Your task to perform on an android device: read, delete, or share a saved page in the chrome app Image 0: 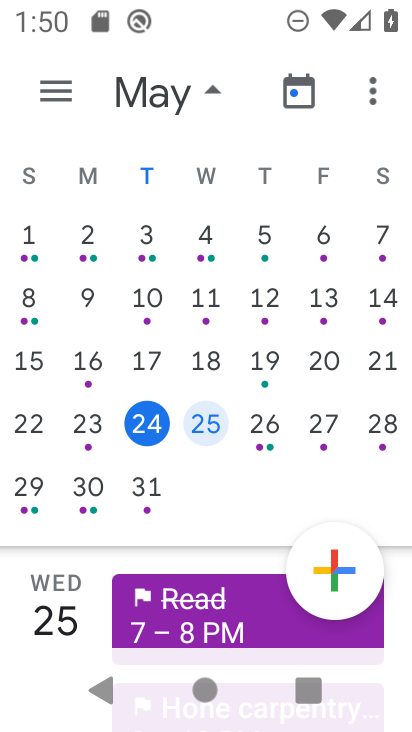
Step 0: press home button
Your task to perform on an android device: read, delete, or share a saved page in the chrome app Image 1: 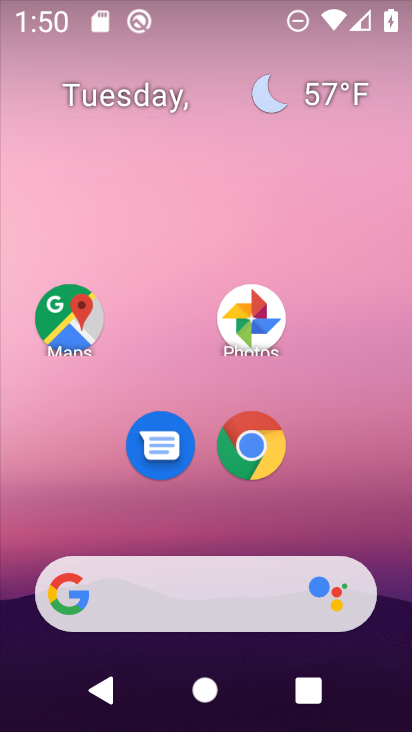
Step 1: drag from (351, 526) to (378, 158)
Your task to perform on an android device: read, delete, or share a saved page in the chrome app Image 2: 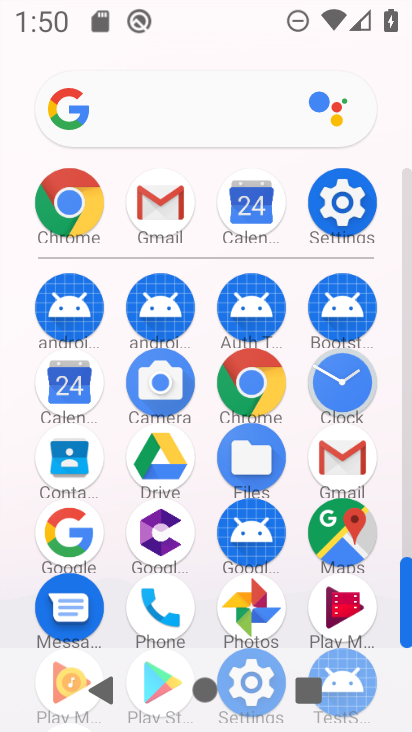
Step 2: click (280, 395)
Your task to perform on an android device: read, delete, or share a saved page in the chrome app Image 3: 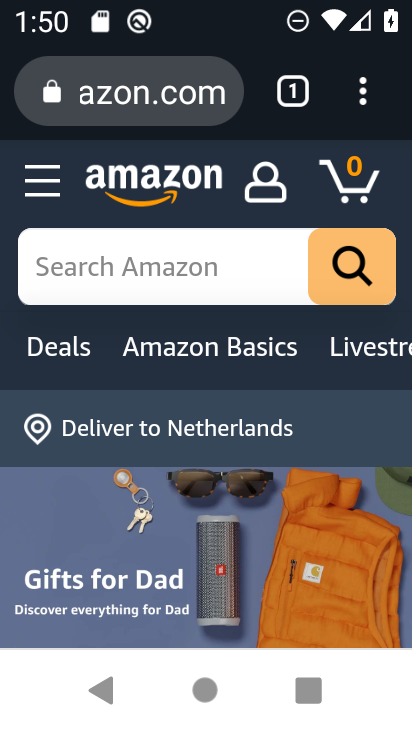
Step 3: click (364, 107)
Your task to perform on an android device: read, delete, or share a saved page in the chrome app Image 4: 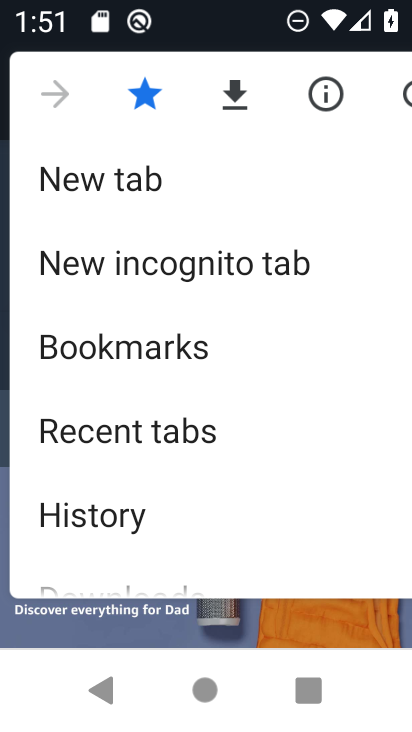
Step 4: drag from (336, 483) to (352, 350)
Your task to perform on an android device: read, delete, or share a saved page in the chrome app Image 5: 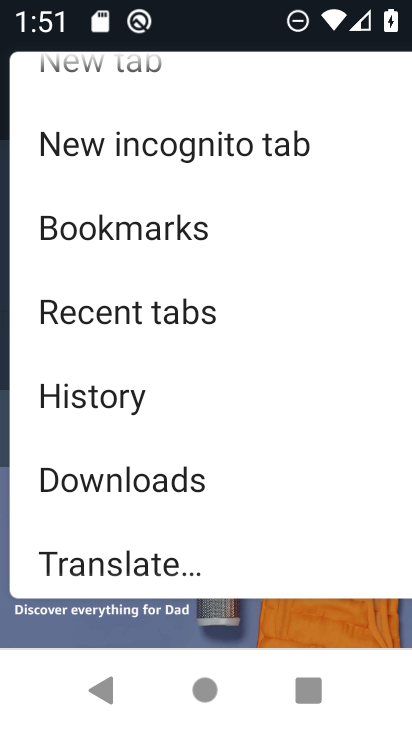
Step 5: drag from (336, 458) to (328, 306)
Your task to perform on an android device: read, delete, or share a saved page in the chrome app Image 6: 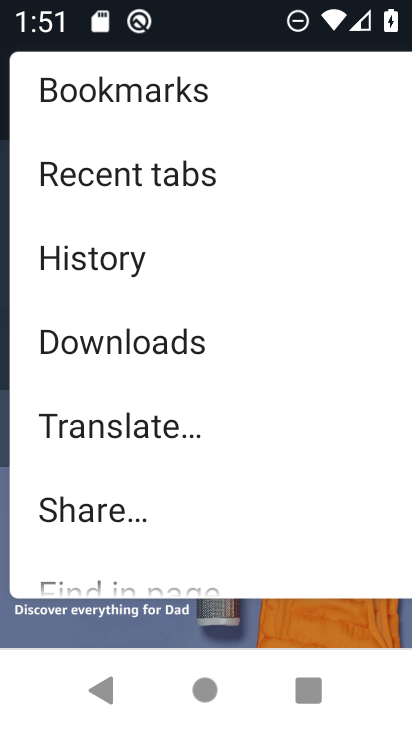
Step 6: drag from (359, 464) to (347, 318)
Your task to perform on an android device: read, delete, or share a saved page in the chrome app Image 7: 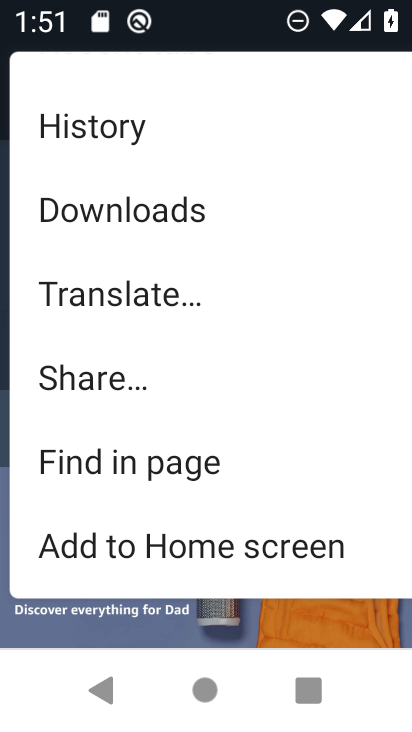
Step 7: drag from (383, 504) to (375, 356)
Your task to perform on an android device: read, delete, or share a saved page in the chrome app Image 8: 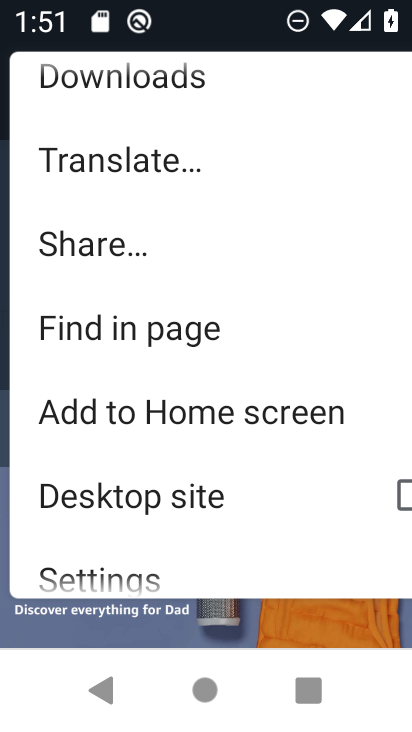
Step 8: drag from (322, 498) to (323, 389)
Your task to perform on an android device: read, delete, or share a saved page in the chrome app Image 9: 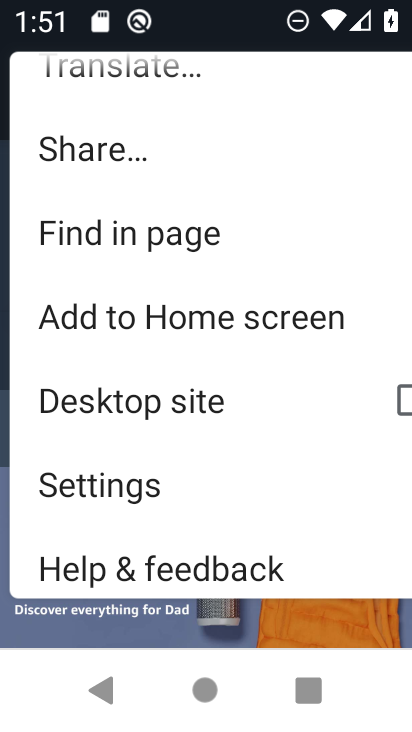
Step 9: drag from (317, 165) to (285, 302)
Your task to perform on an android device: read, delete, or share a saved page in the chrome app Image 10: 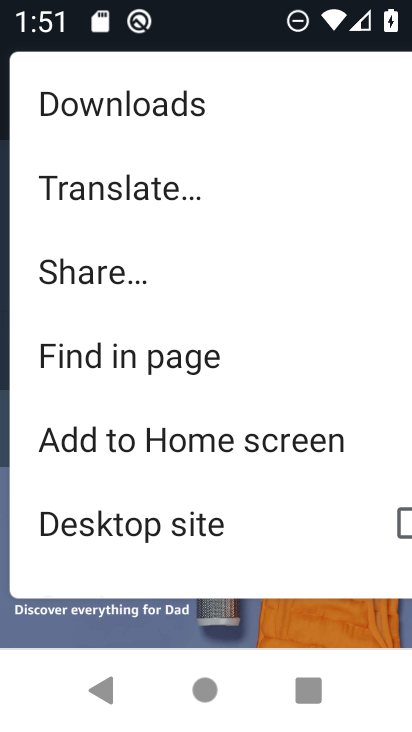
Step 10: drag from (299, 189) to (295, 307)
Your task to perform on an android device: read, delete, or share a saved page in the chrome app Image 11: 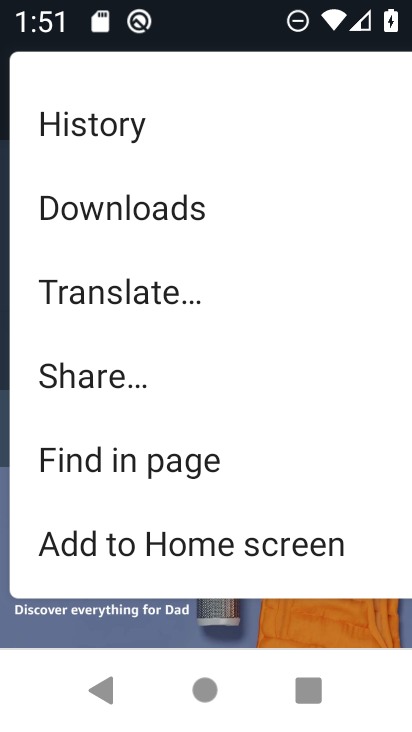
Step 11: drag from (290, 173) to (293, 313)
Your task to perform on an android device: read, delete, or share a saved page in the chrome app Image 12: 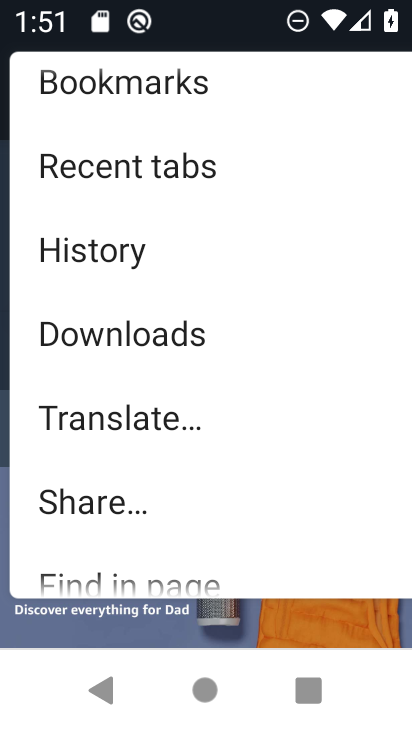
Step 12: click (199, 338)
Your task to perform on an android device: read, delete, or share a saved page in the chrome app Image 13: 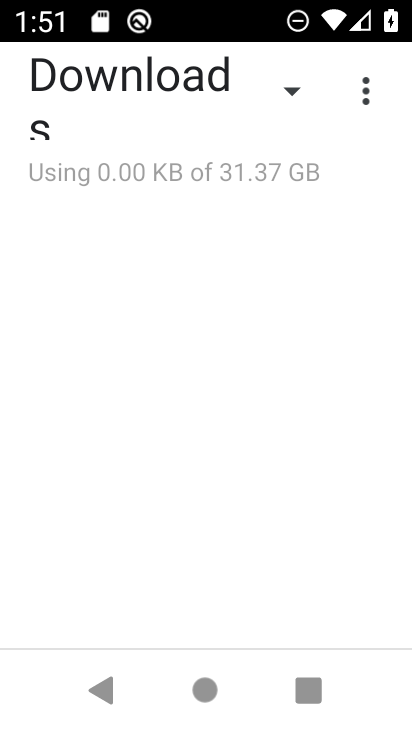
Step 13: click (293, 89)
Your task to perform on an android device: read, delete, or share a saved page in the chrome app Image 14: 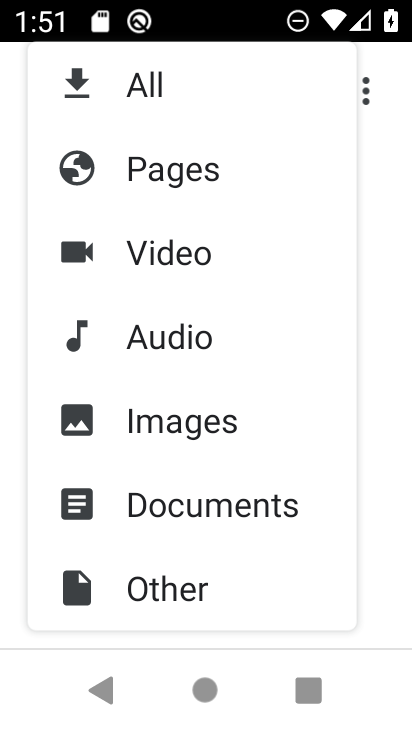
Step 14: click (205, 176)
Your task to perform on an android device: read, delete, or share a saved page in the chrome app Image 15: 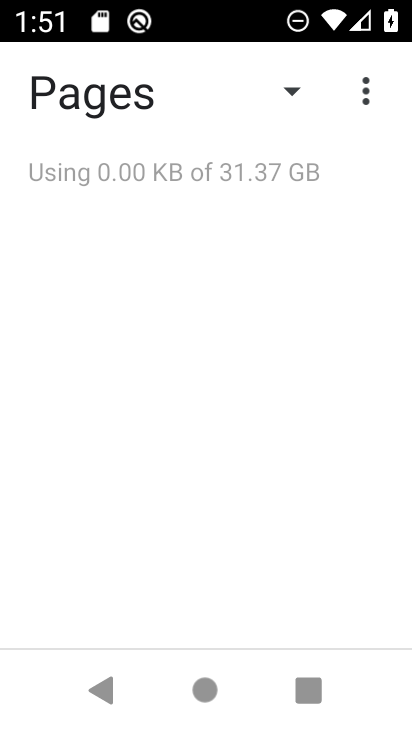
Step 15: task complete